Your task to perform on an android device: What is the news today? Image 0: 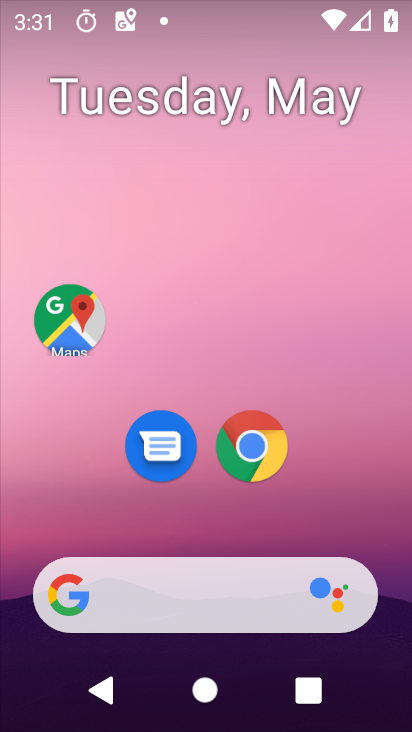
Step 0: drag from (5, 259) to (411, 186)
Your task to perform on an android device: What is the news today? Image 1: 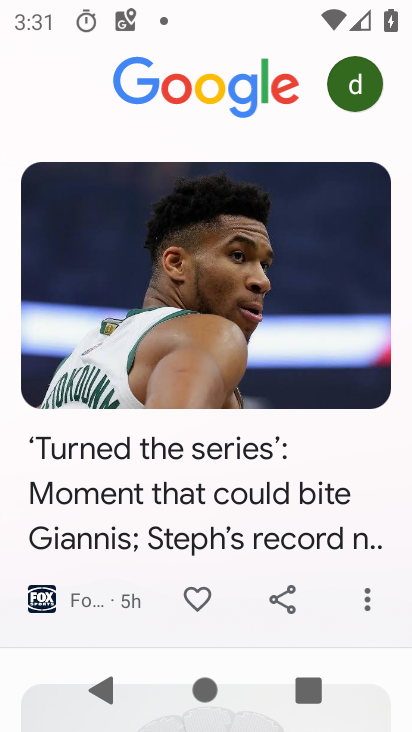
Step 1: task complete